Your task to perform on an android device: set the timer Image 0: 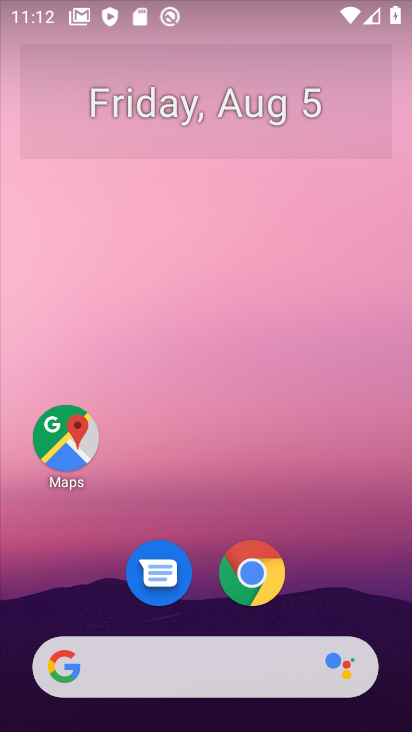
Step 0: drag from (247, 466) to (272, 89)
Your task to perform on an android device: set the timer Image 1: 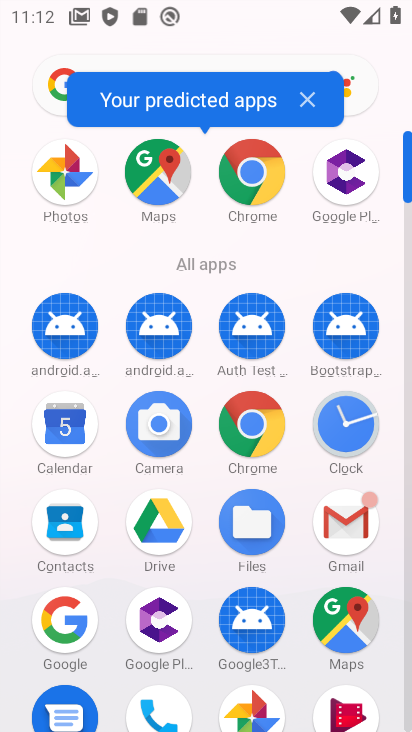
Step 1: drag from (244, 463) to (300, 263)
Your task to perform on an android device: set the timer Image 2: 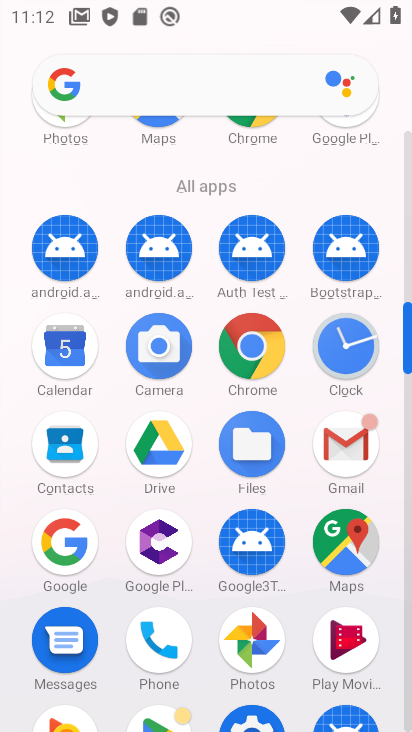
Step 2: drag from (205, 615) to (211, 298)
Your task to perform on an android device: set the timer Image 3: 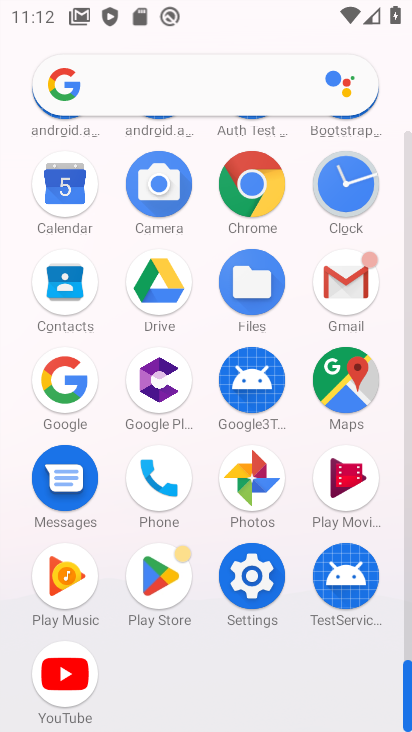
Step 3: click (340, 190)
Your task to perform on an android device: set the timer Image 4: 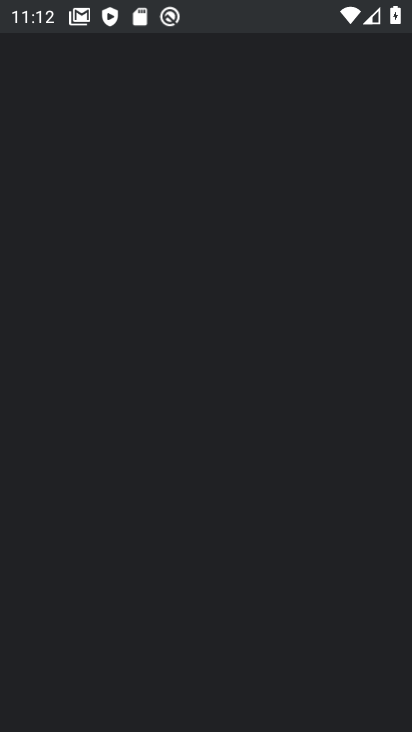
Step 4: task complete